Your task to perform on an android device: Open my contact list Image 0: 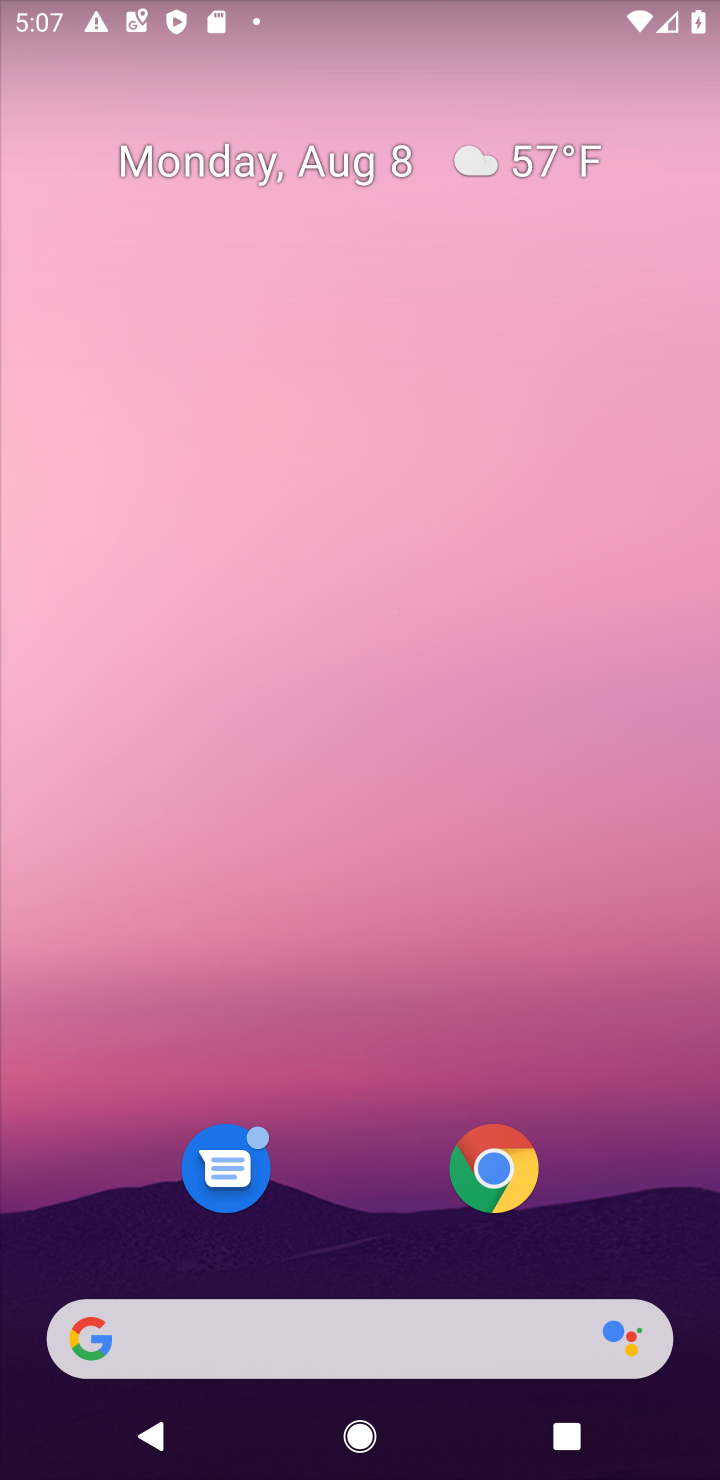
Step 0: drag from (372, 1208) to (431, 79)
Your task to perform on an android device: Open my contact list Image 1: 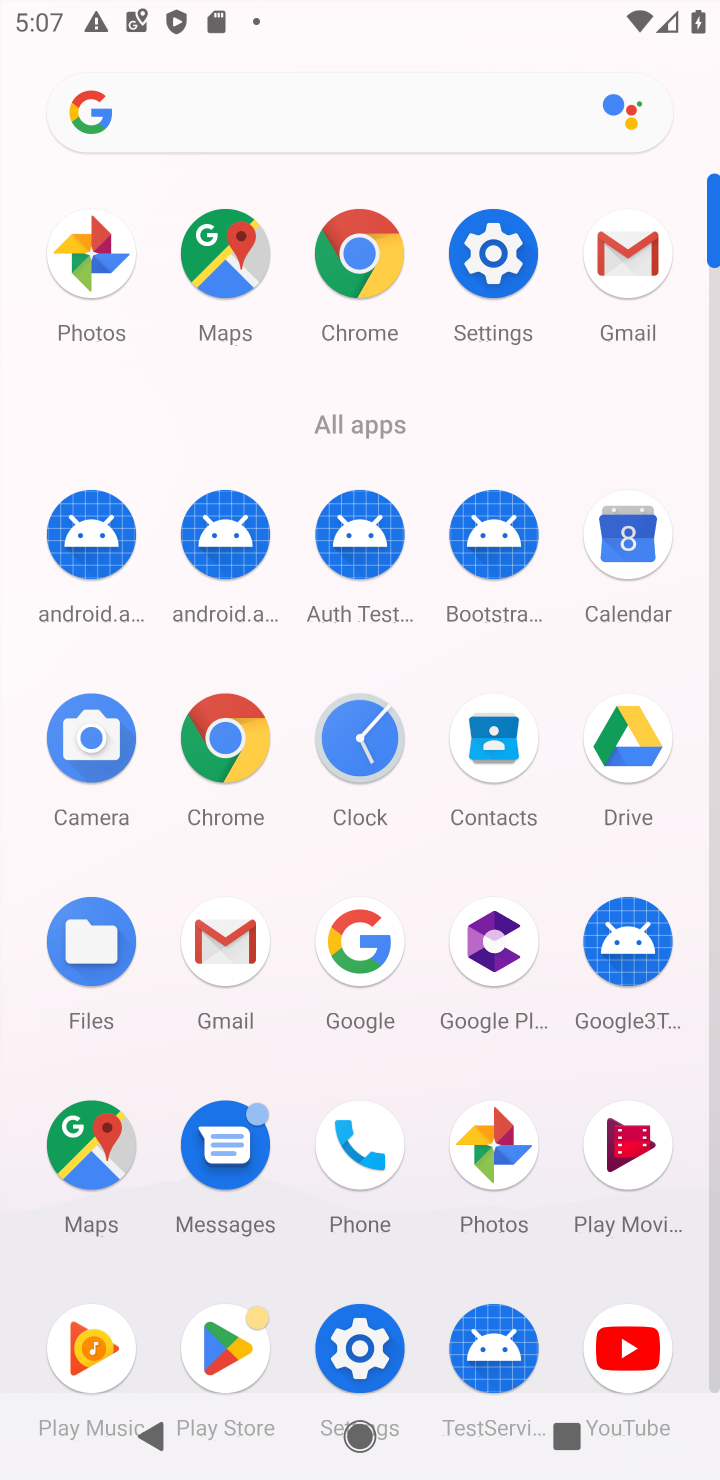
Step 1: click (487, 751)
Your task to perform on an android device: Open my contact list Image 2: 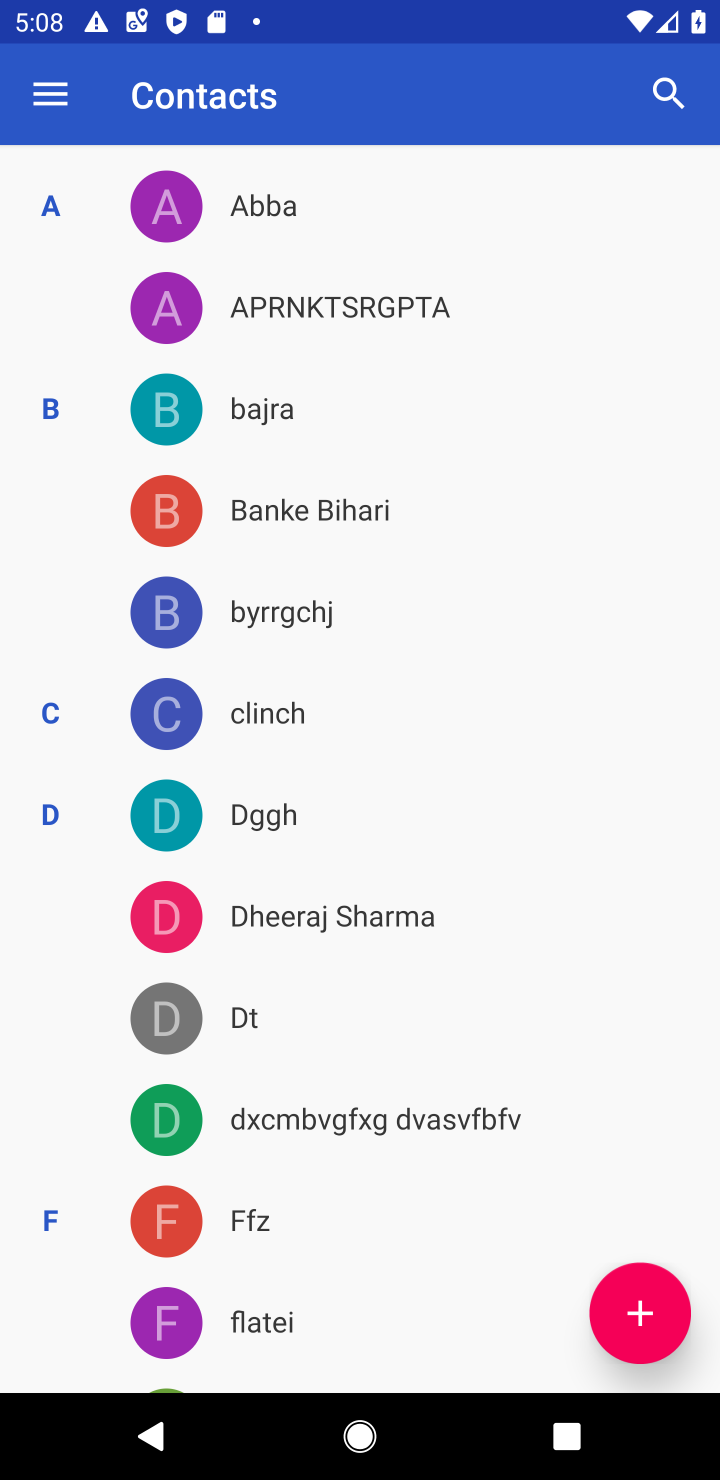
Step 2: task complete